Your task to perform on an android device: Open display settings Image 0: 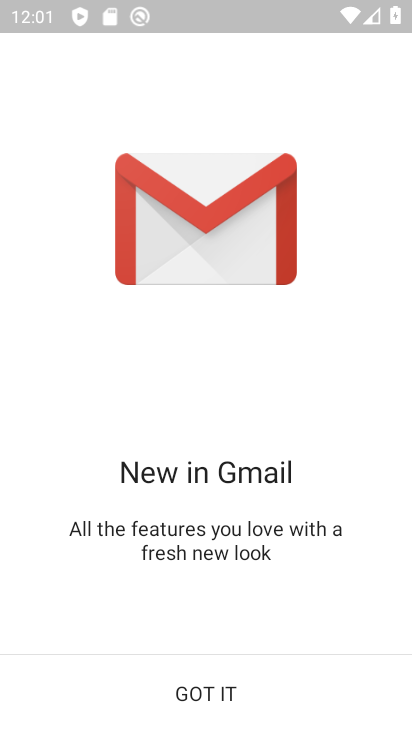
Step 0: press home button
Your task to perform on an android device: Open display settings Image 1: 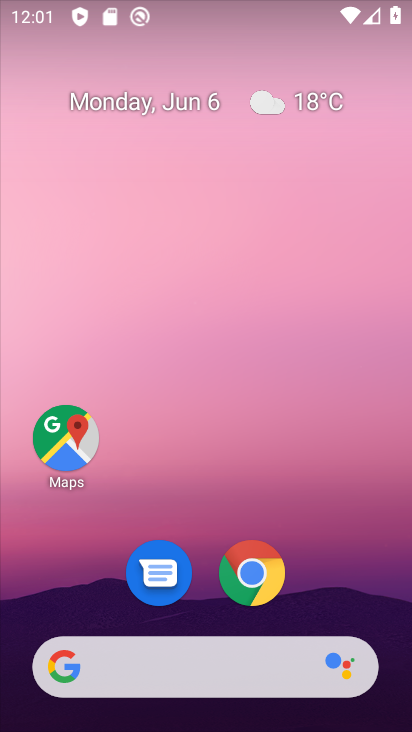
Step 1: drag from (114, 607) to (292, 139)
Your task to perform on an android device: Open display settings Image 2: 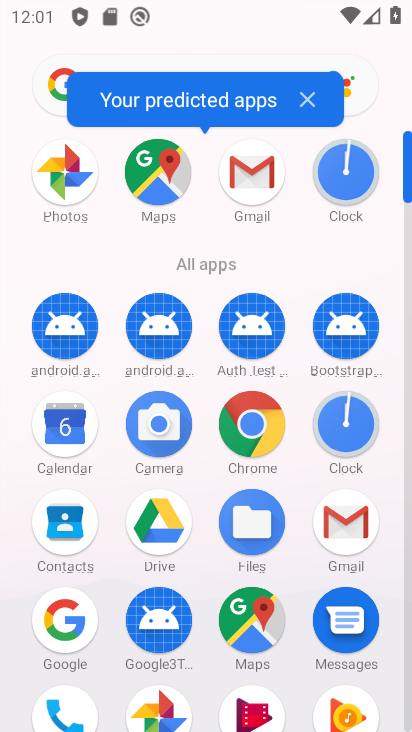
Step 2: drag from (153, 656) to (305, 324)
Your task to perform on an android device: Open display settings Image 3: 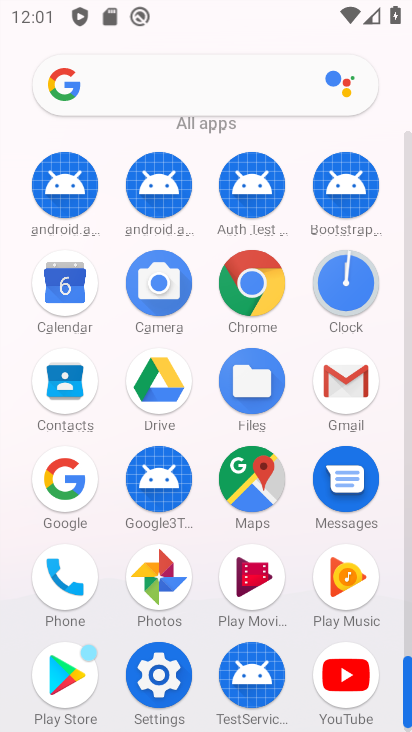
Step 3: click (166, 677)
Your task to perform on an android device: Open display settings Image 4: 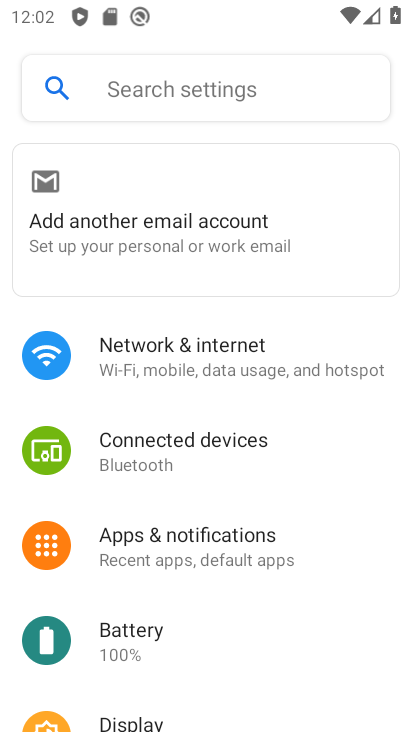
Step 4: drag from (191, 691) to (314, 444)
Your task to perform on an android device: Open display settings Image 5: 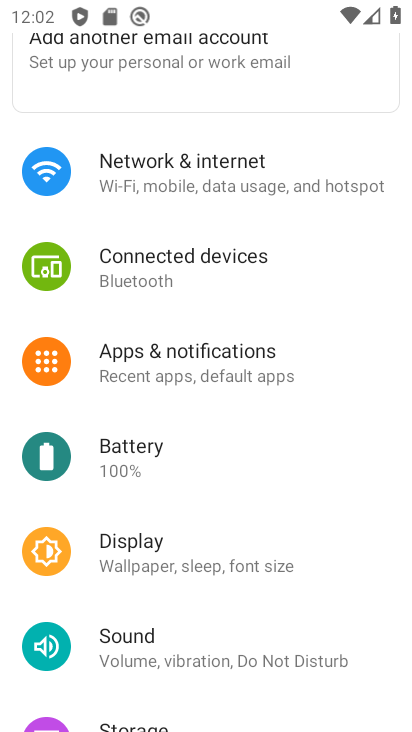
Step 5: click (207, 553)
Your task to perform on an android device: Open display settings Image 6: 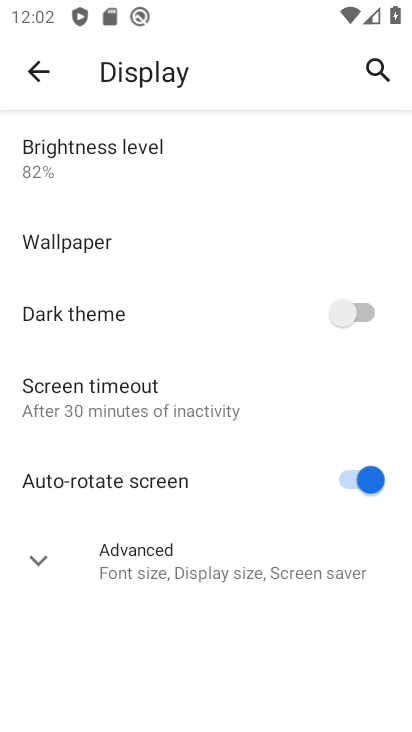
Step 6: task complete